Your task to perform on an android device: Open the map Image 0: 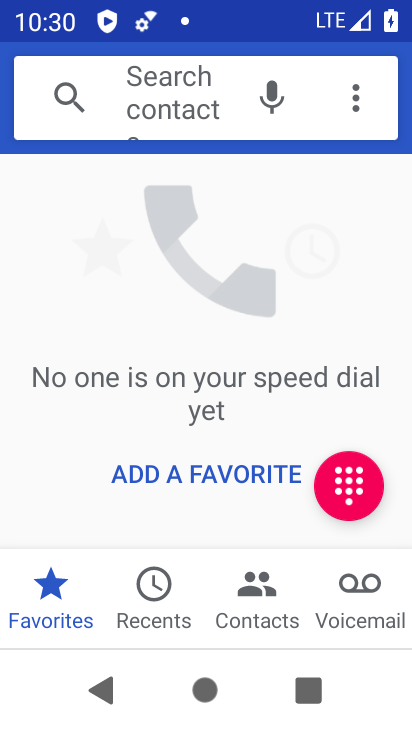
Step 0: click (266, 446)
Your task to perform on an android device: Open the map Image 1: 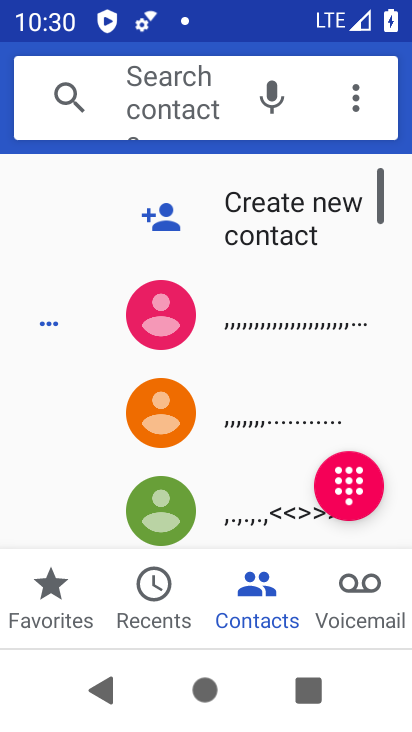
Step 1: press home button
Your task to perform on an android device: Open the map Image 2: 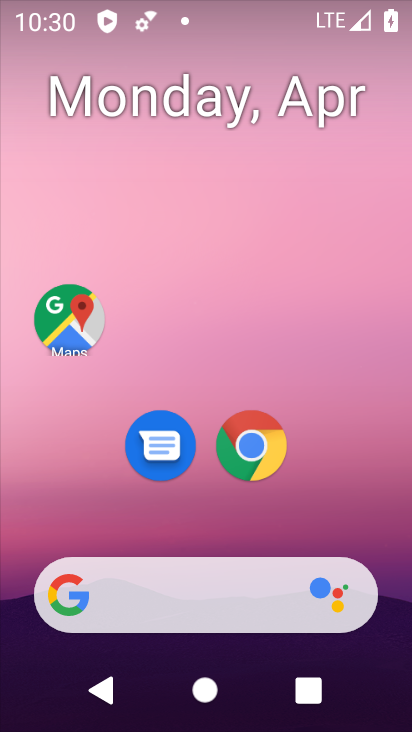
Step 2: click (74, 320)
Your task to perform on an android device: Open the map Image 3: 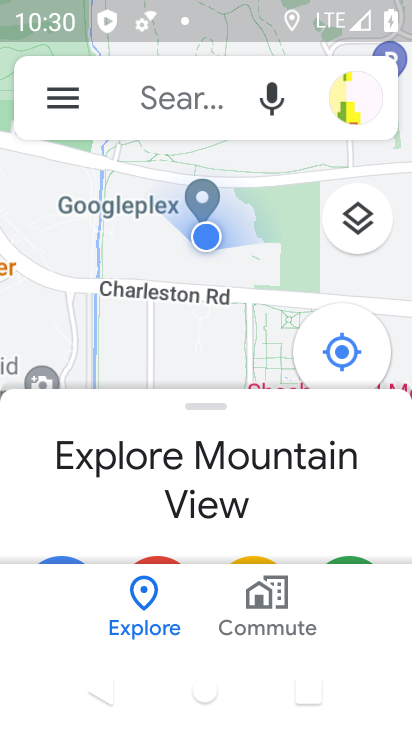
Step 3: task complete